Your task to perform on an android device: Open location settings Image 0: 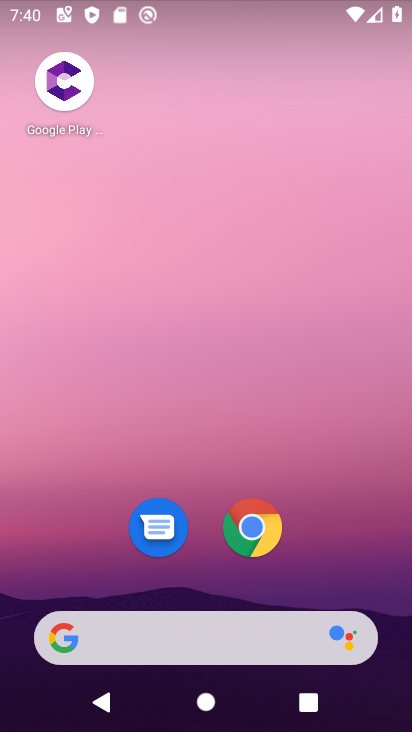
Step 0: drag from (284, 642) to (289, 31)
Your task to perform on an android device: Open location settings Image 1: 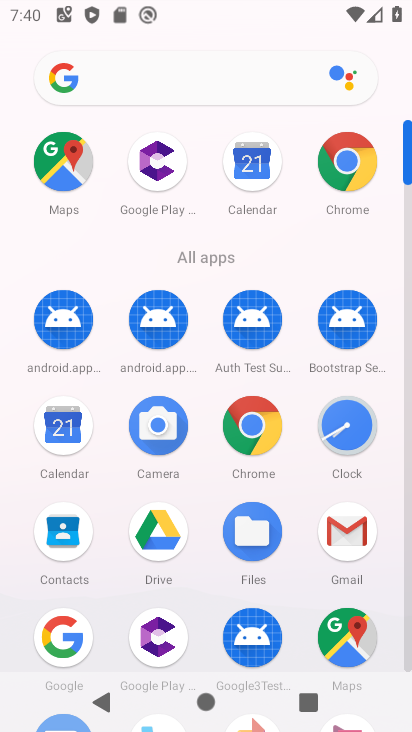
Step 1: click (408, 503)
Your task to perform on an android device: Open location settings Image 2: 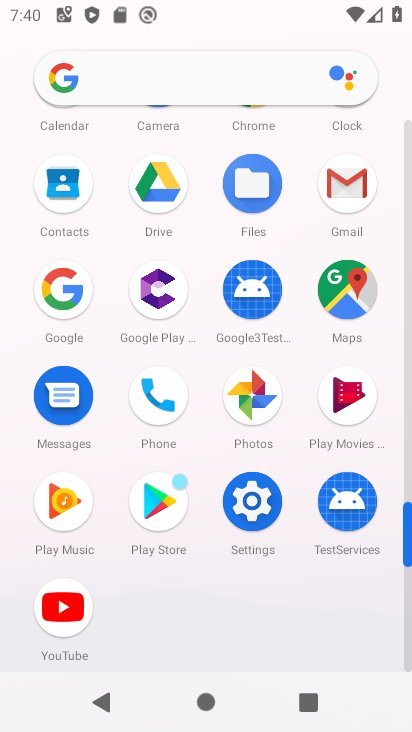
Step 2: click (260, 519)
Your task to perform on an android device: Open location settings Image 3: 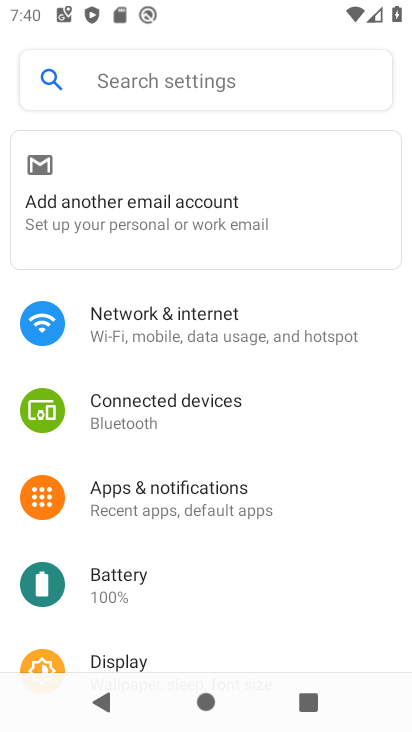
Step 3: drag from (269, 565) to (234, 58)
Your task to perform on an android device: Open location settings Image 4: 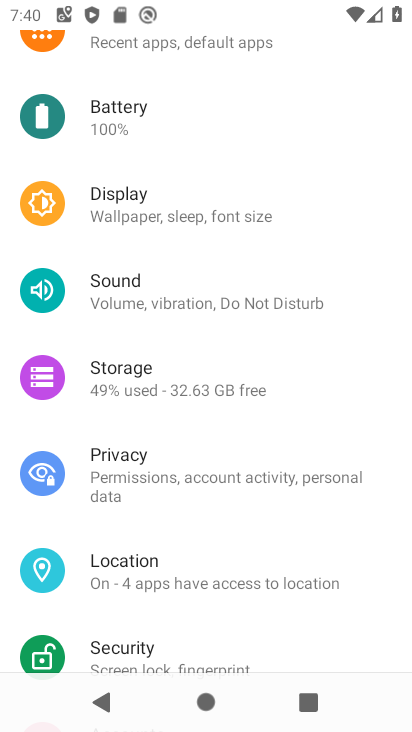
Step 4: click (210, 587)
Your task to perform on an android device: Open location settings Image 5: 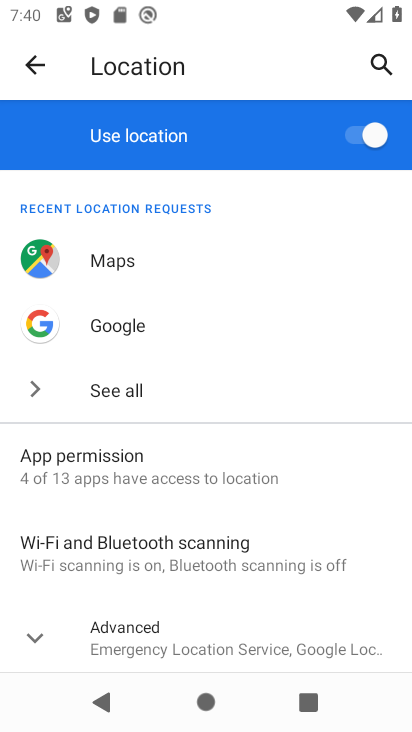
Step 5: task complete